Your task to perform on an android device: set the stopwatch Image 0: 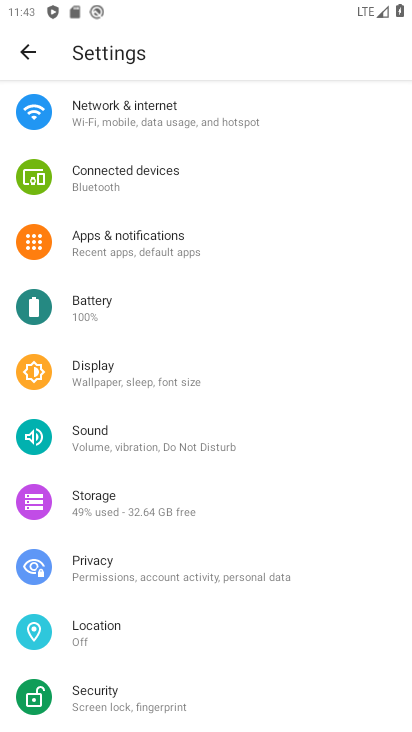
Step 0: press home button
Your task to perform on an android device: set the stopwatch Image 1: 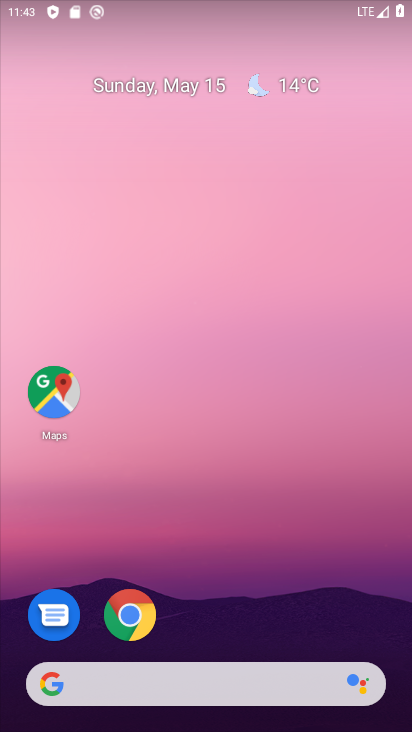
Step 1: drag from (270, 521) to (288, 92)
Your task to perform on an android device: set the stopwatch Image 2: 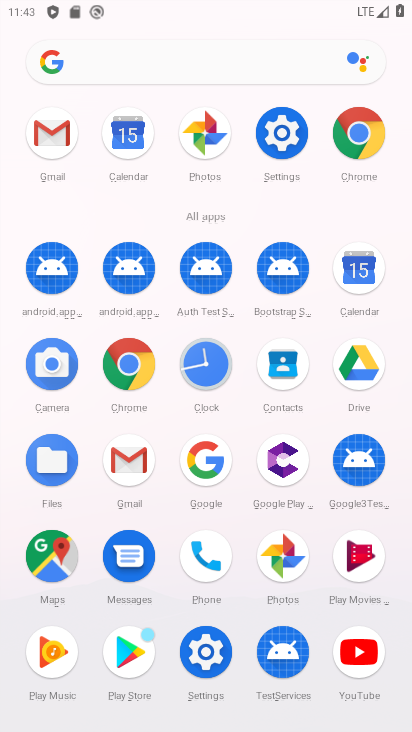
Step 2: click (207, 371)
Your task to perform on an android device: set the stopwatch Image 3: 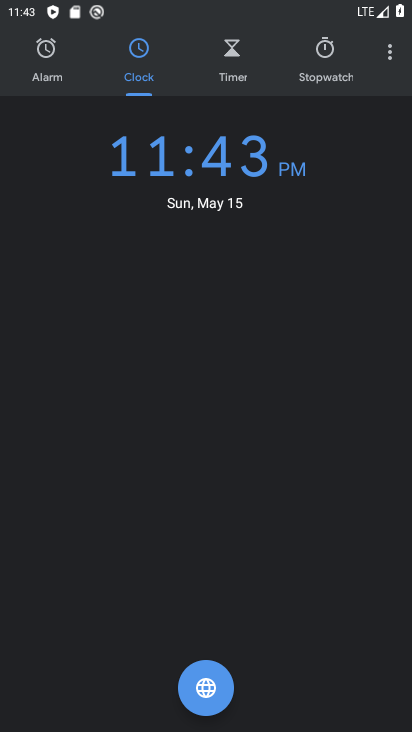
Step 3: click (326, 72)
Your task to perform on an android device: set the stopwatch Image 4: 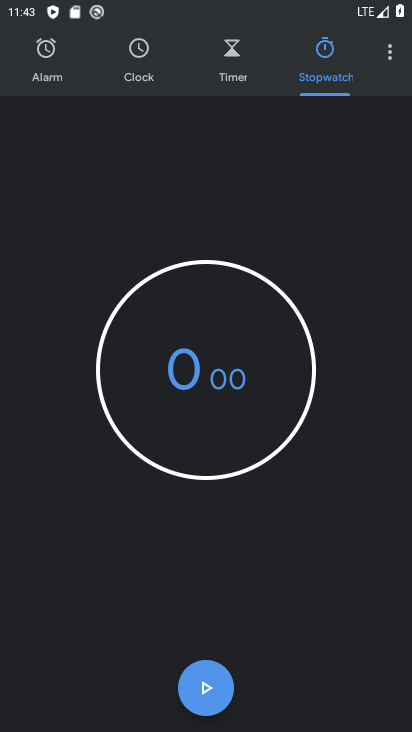
Step 4: click (218, 691)
Your task to perform on an android device: set the stopwatch Image 5: 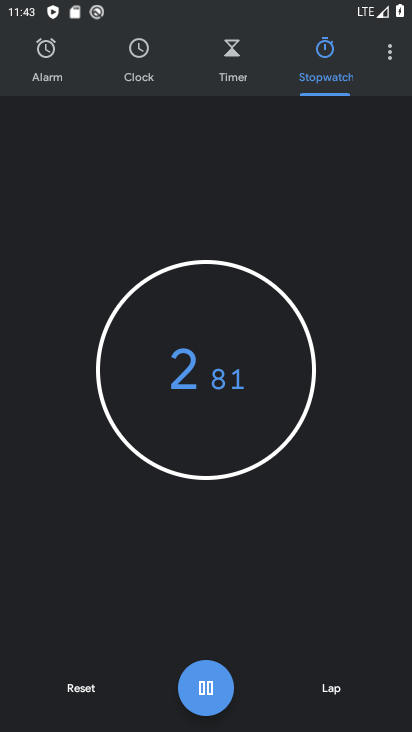
Step 5: task complete